Your task to perform on an android device: Open Maps and search for coffee Image 0: 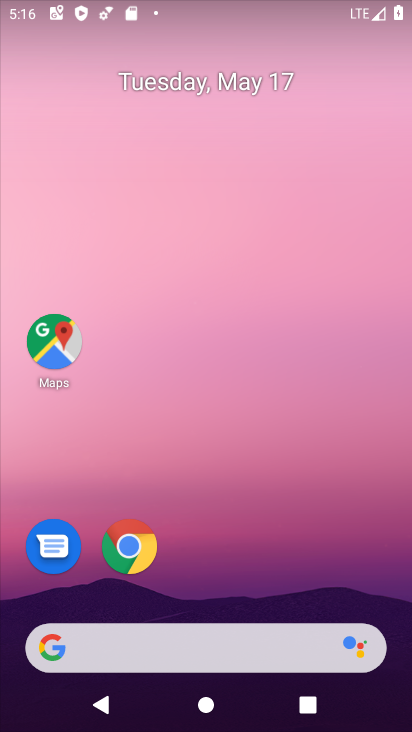
Step 0: drag from (256, 495) to (265, 28)
Your task to perform on an android device: Open Maps and search for coffee Image 1: 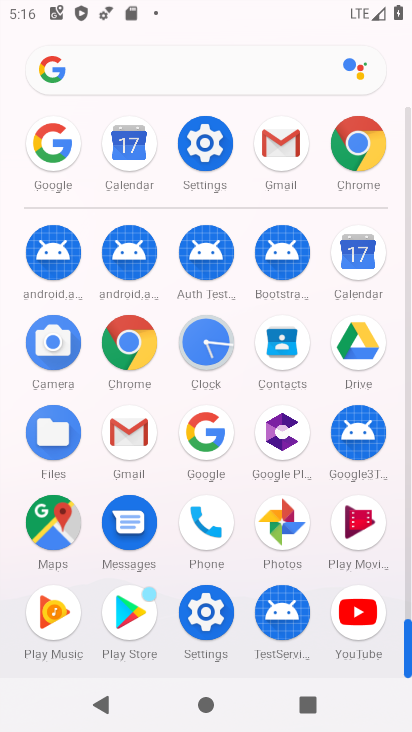
Step 1: click (61, 529)
Your task to perform on an android device: Open Maps and search for coffee Image 2: 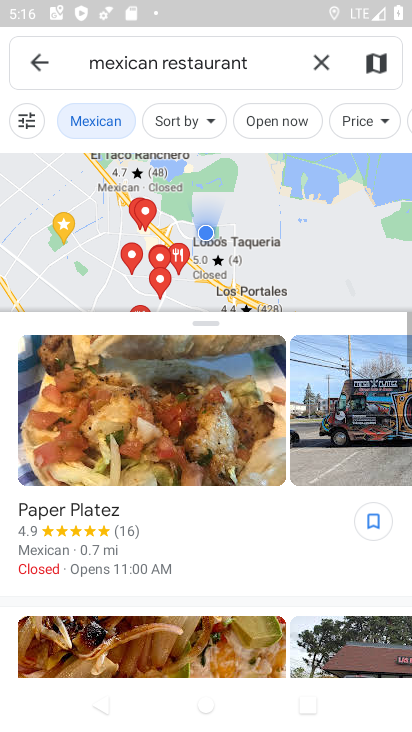
Step 2: click (316, 61)
Your task to perform on an android device: Open Maps and search for coffee Image 3: 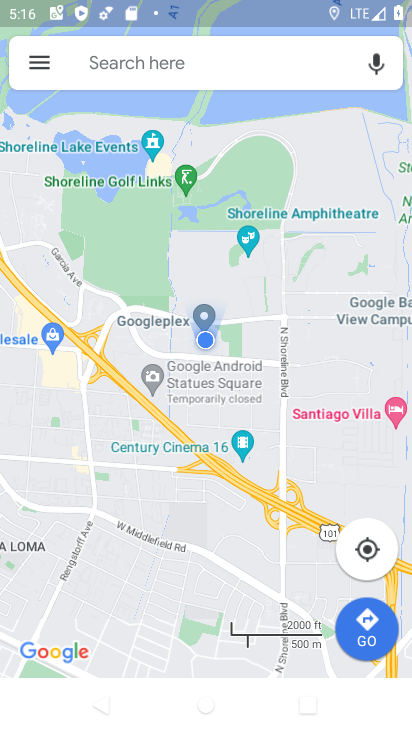
Step 3: click (211, 64)
Your task to perform on an android device: Open Maps and search for coffee Image 4: 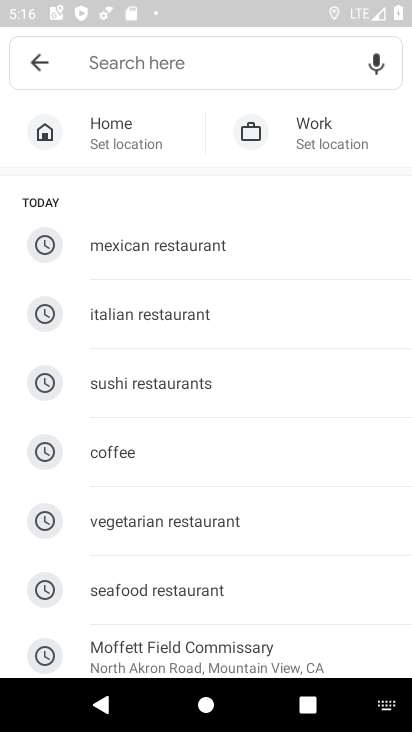
Step 4: click (129, 460)
Your task to perform on an android device: Open Maps and search for coffee Image 5: 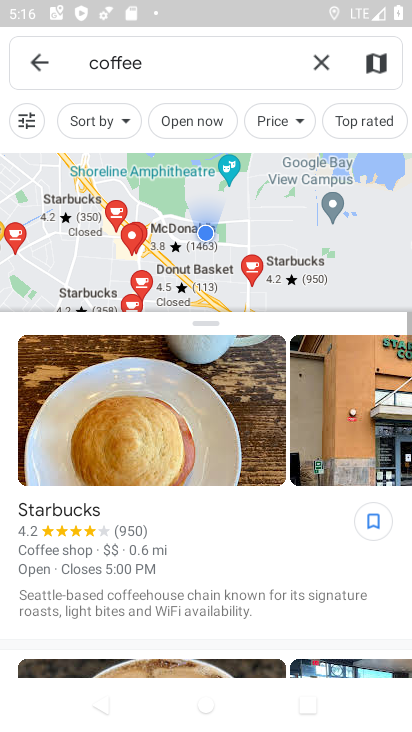
Step 5: task complete